Your task to perform on an android device: uninstall "Nova Launcher" Image 0: 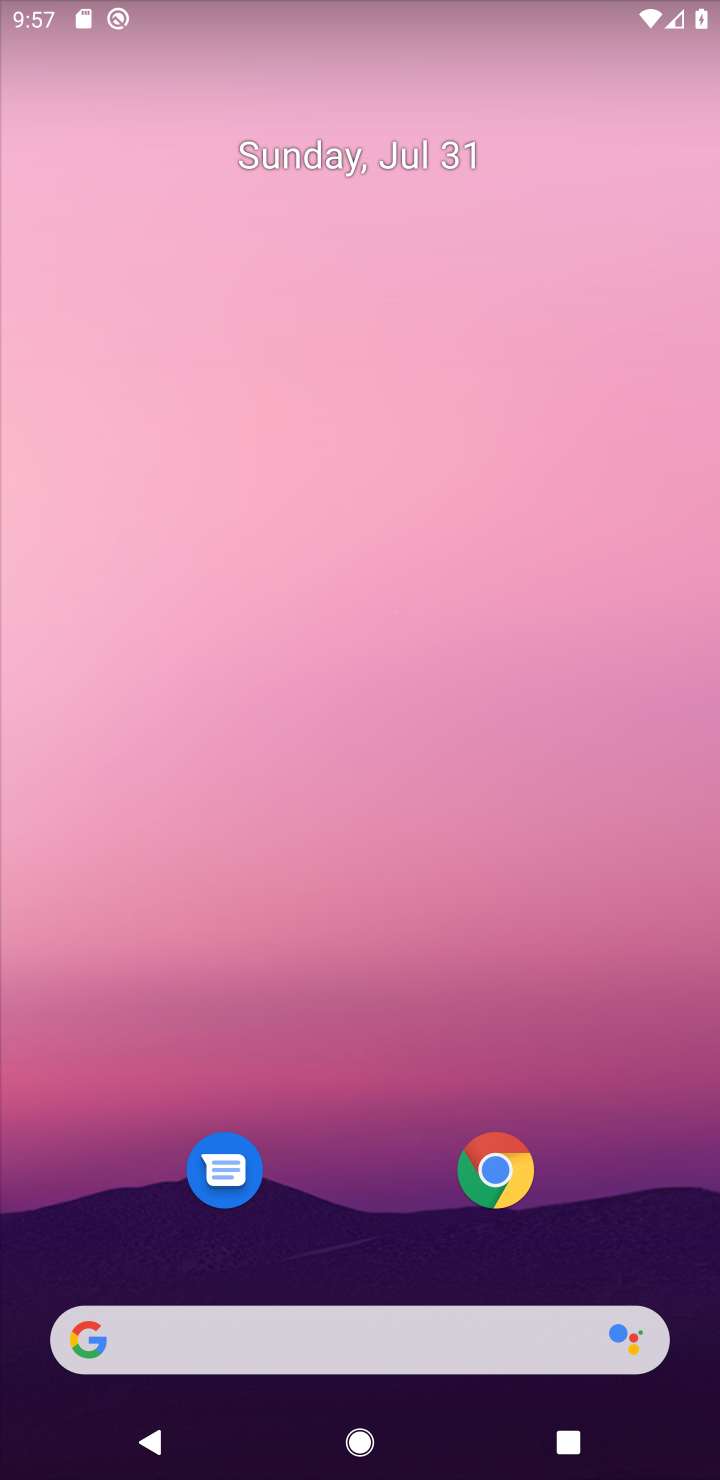
Step 0: drag from (658, 1170) to (380, 75)
Your task to perform on an android device: uninstall "Nova Launcher" Image 1: 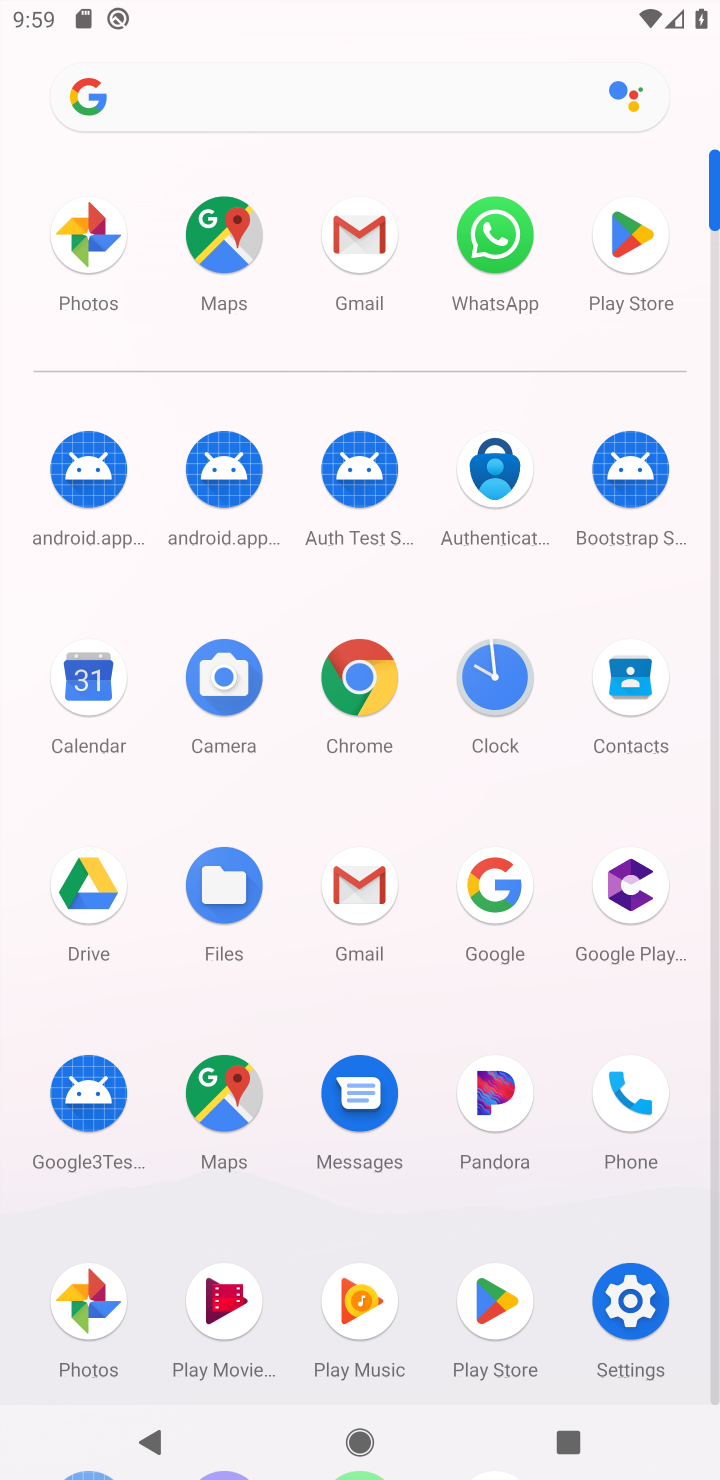
Step 1: click (644, 221)
Your task to perform on an android device: uninstall "Nova Launcher" Image 2: 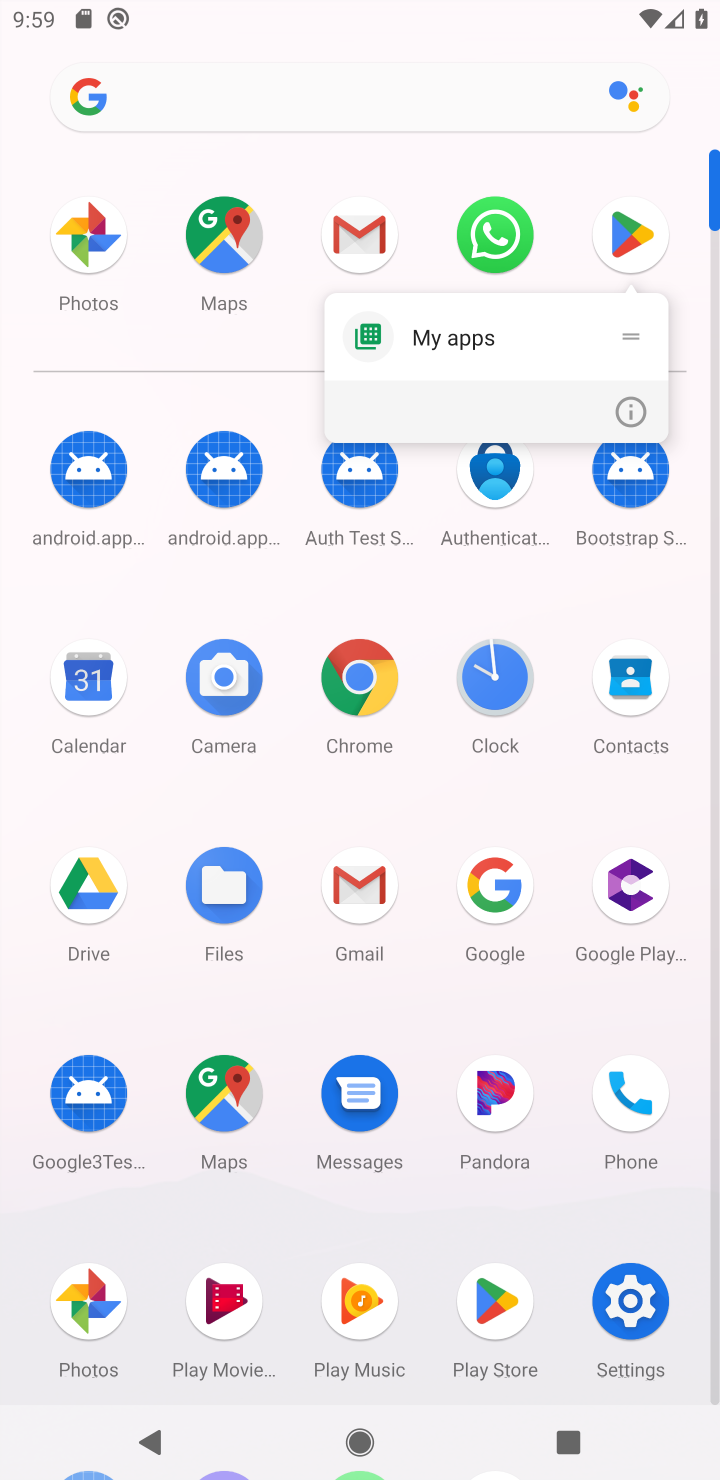
Step 2: click (639, 226)
Your task to perform on an android device: uninstall "Nova Launcher" Image 3: 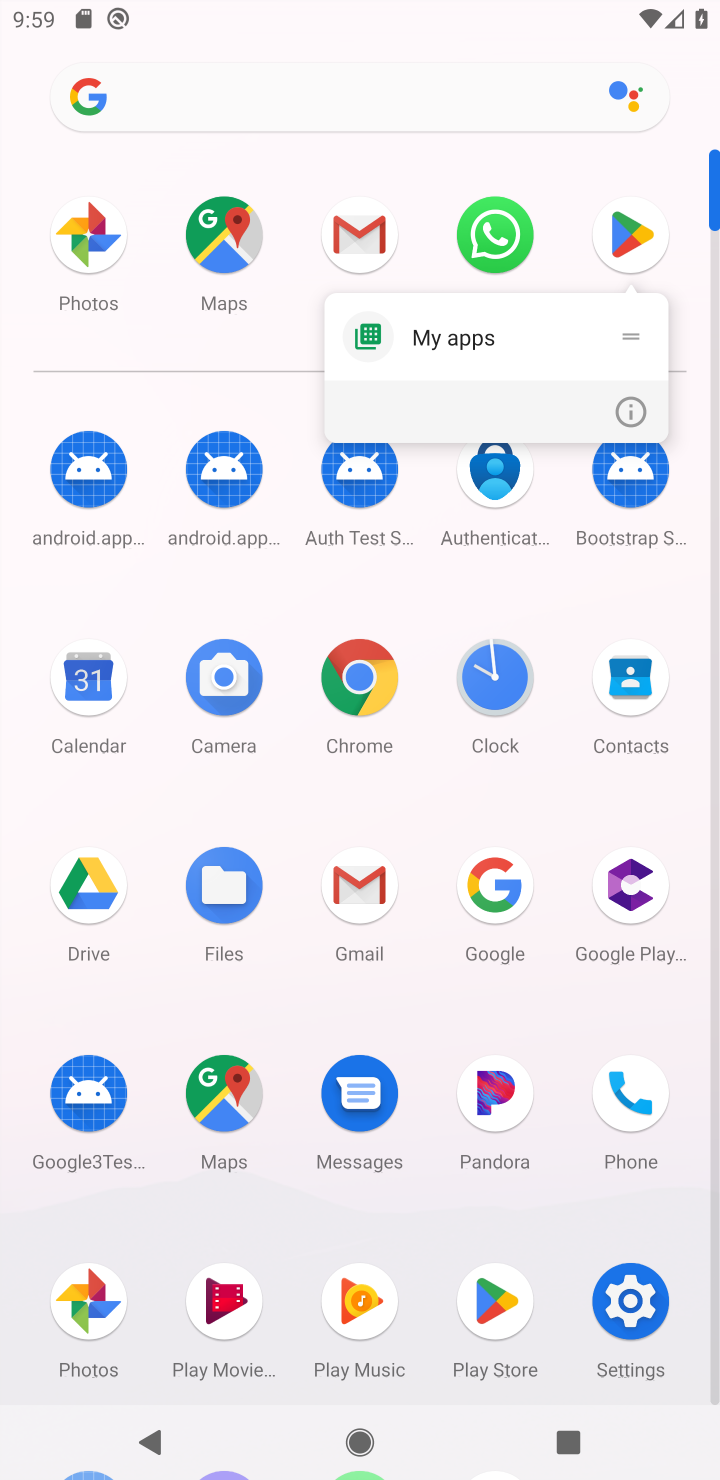
Step 3: click (619, 233)
Your task to perform on an android device: uninstall "Nova Launcher" Image 4: 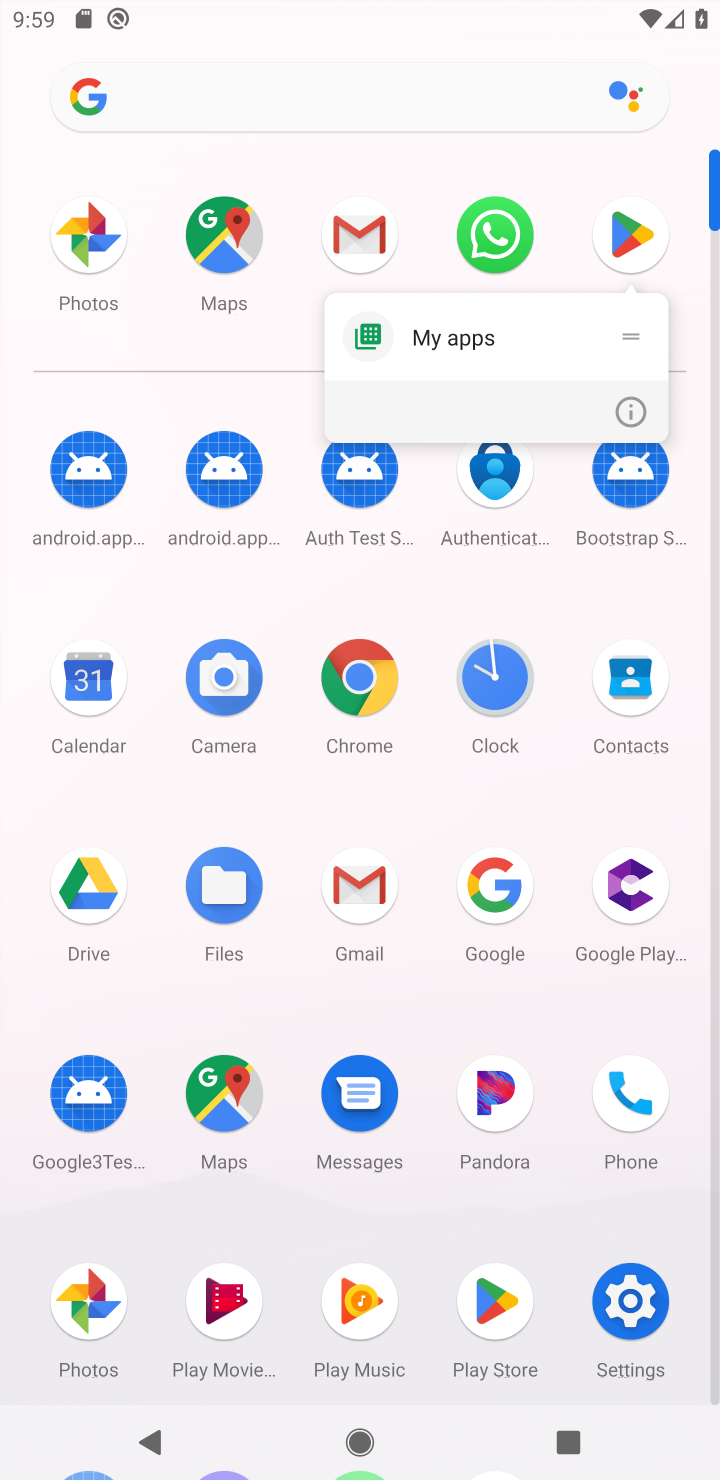
Step 4: click (621, 215)
Your task to perform on an android device: uninstall "Nova Launcher" Image 5: 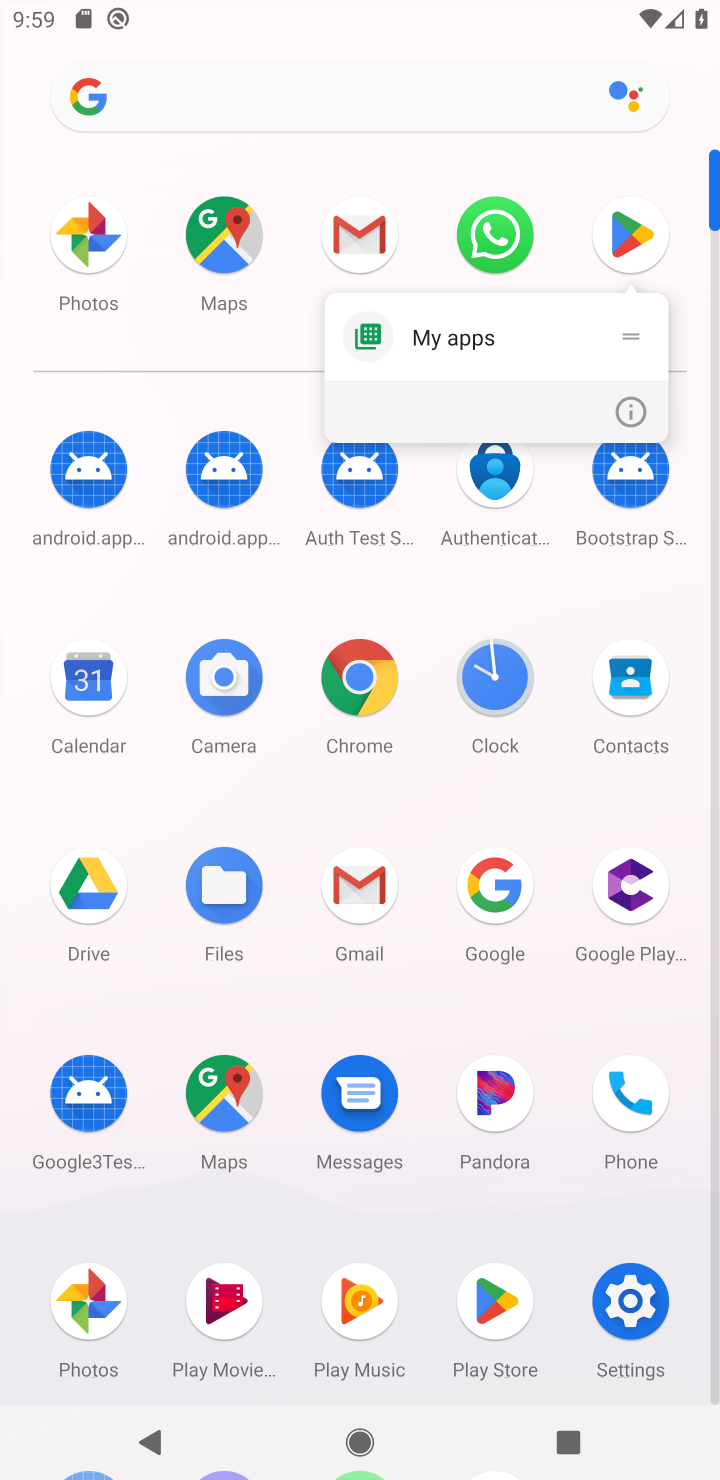
Step 5: click (612, 213)
Your task to perform on an android device: uninstall "Nova Launcher" Image 6: 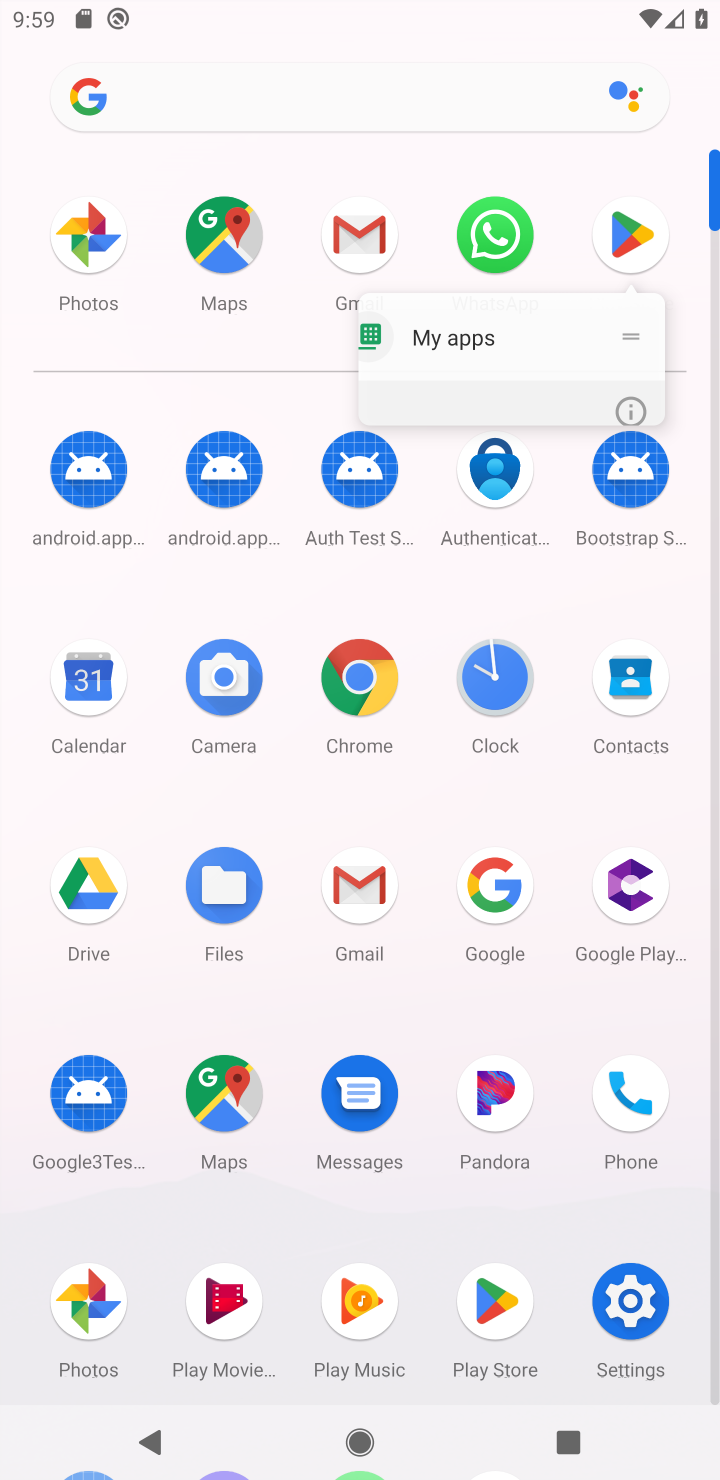
Step 6: click (634, 242)
Your task to perform on an android device: uninstall "Nova Launcher" Image 7: 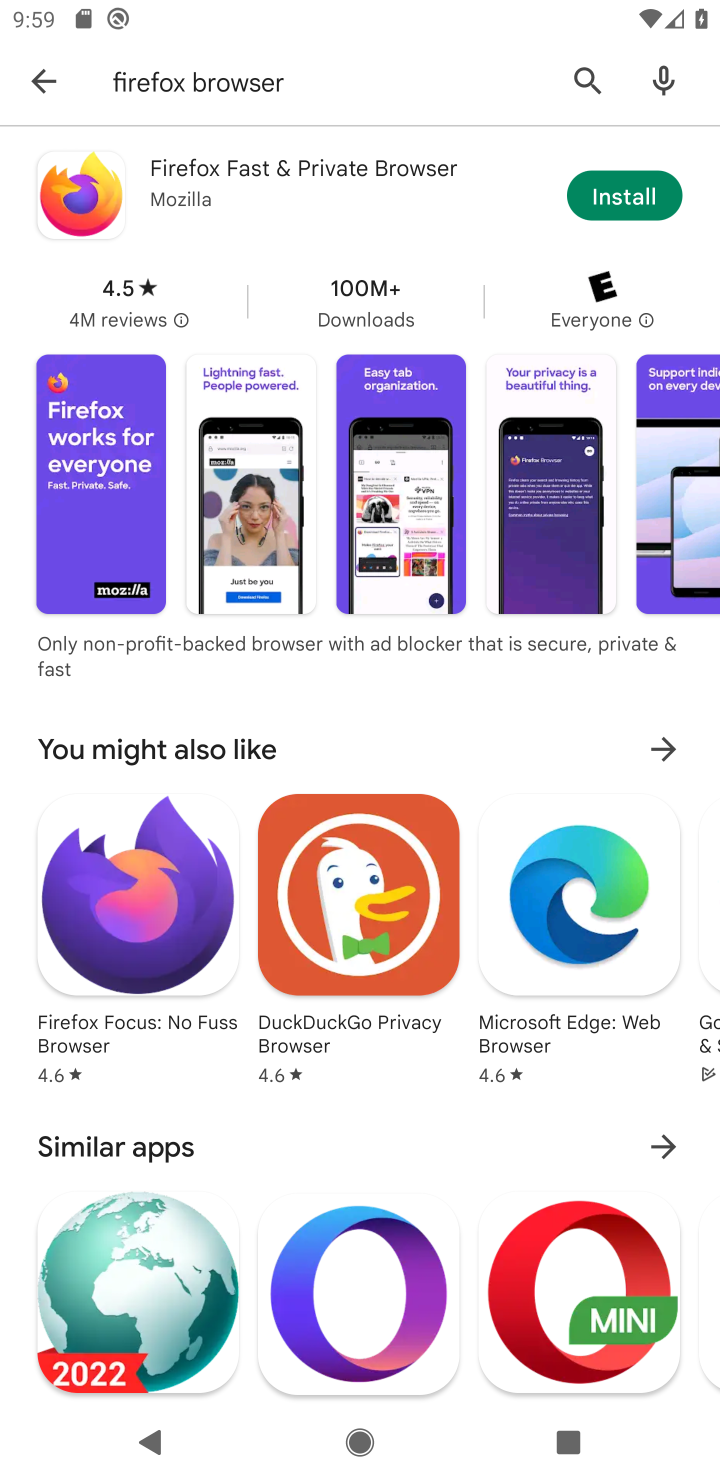
Step 7: press back button
Your task to perform on an android device: uninstall "Nova Launcher" Image 8: 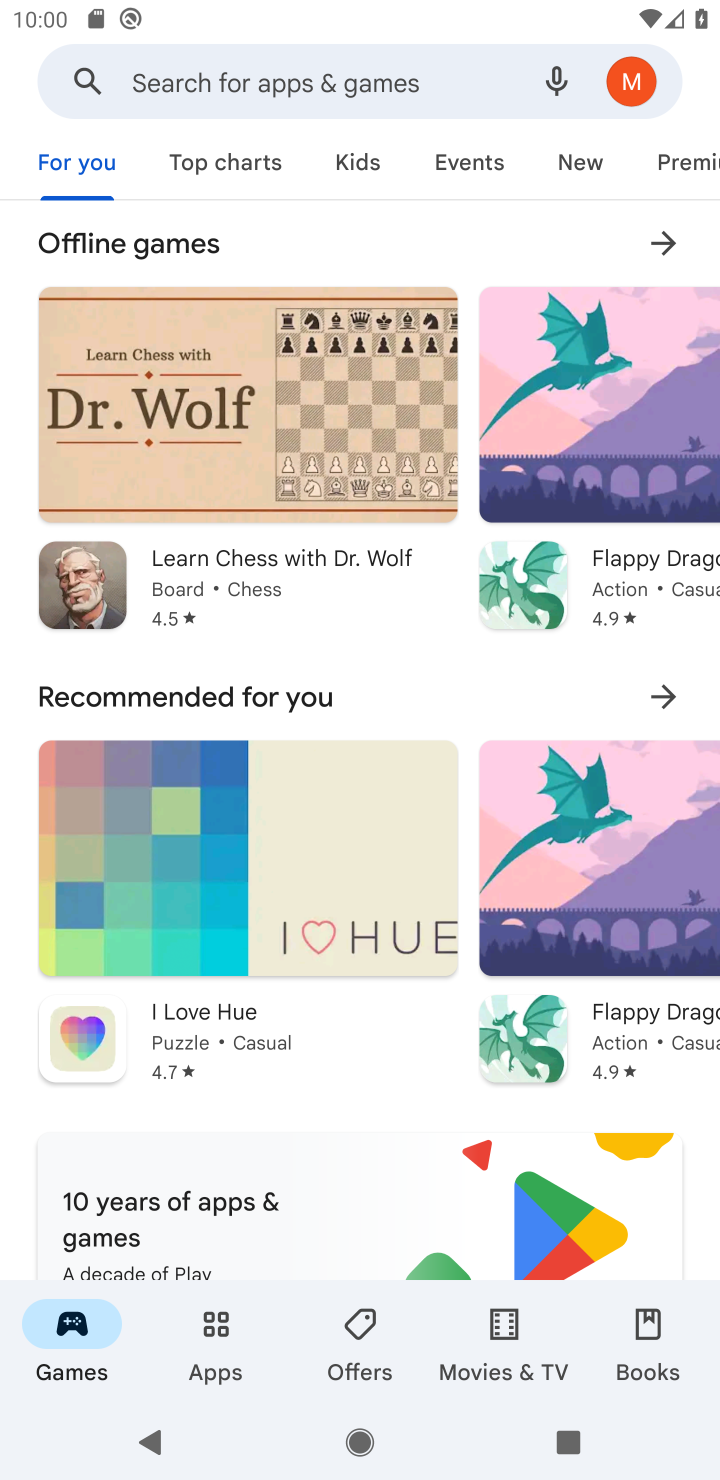
Step 8: click (262, 83)
Your task to perform on an android device: uninstall "Nova Launcher" Image 9: 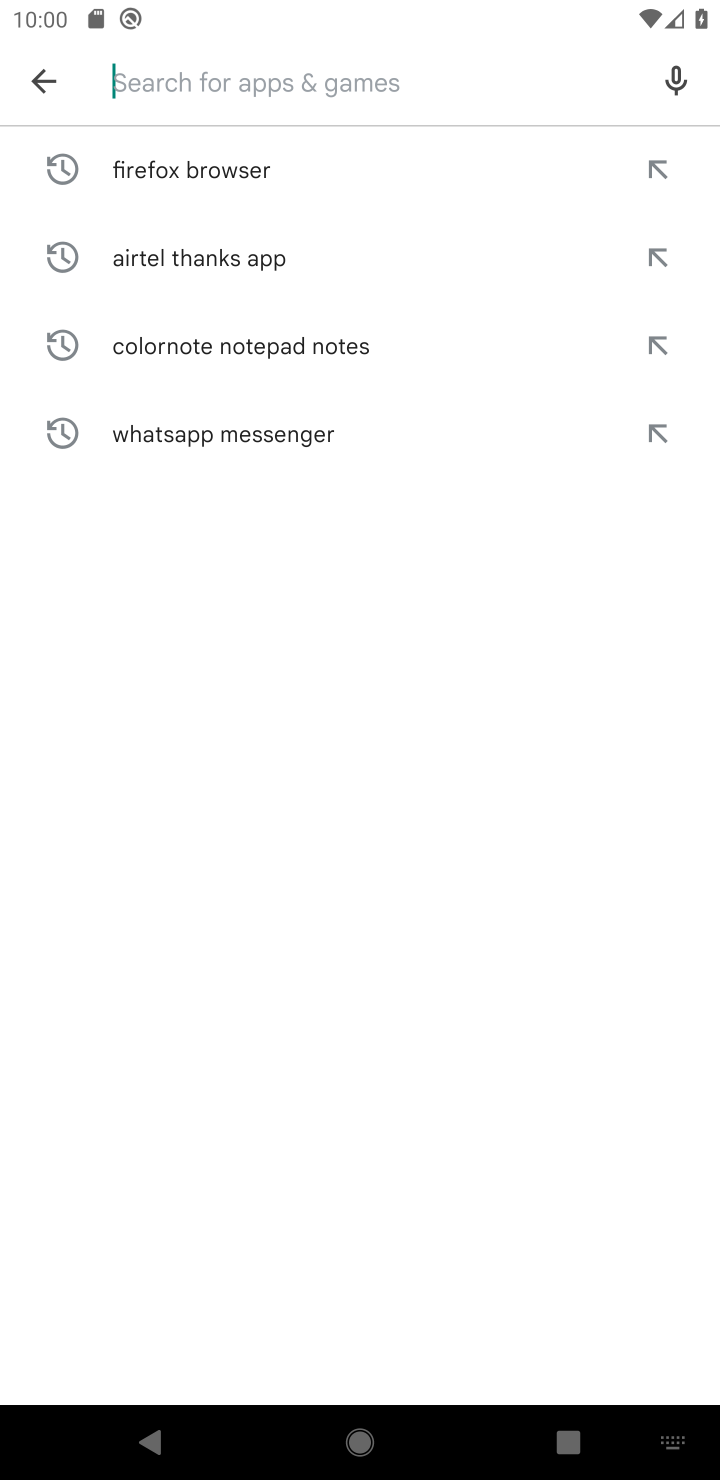
Step 9: type "Nova Launcher"
Your task to perform on an android device: uninstall "Nova Launcher" Image 10: 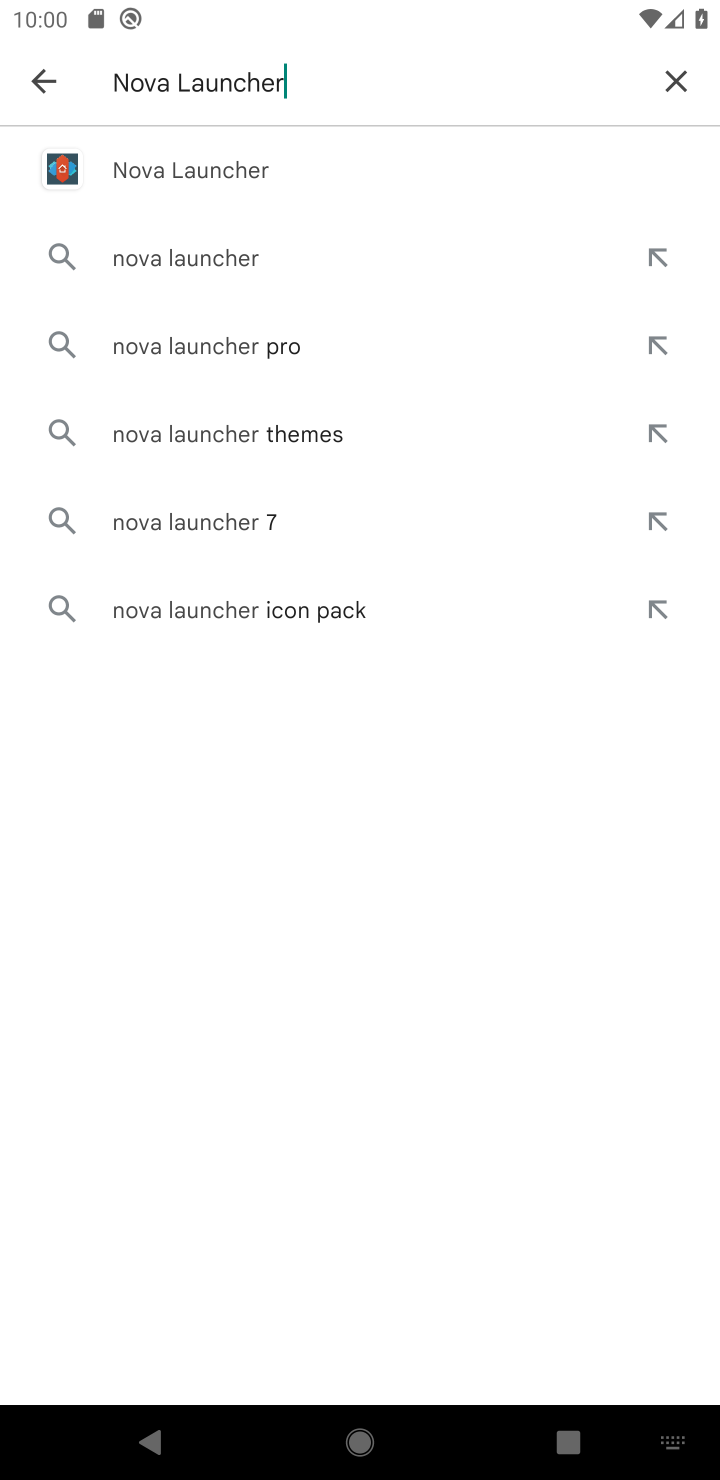
Step 10: click (157, 171)
Your task to perform on an android device: uninstall "Nova Launcher" Image 11: 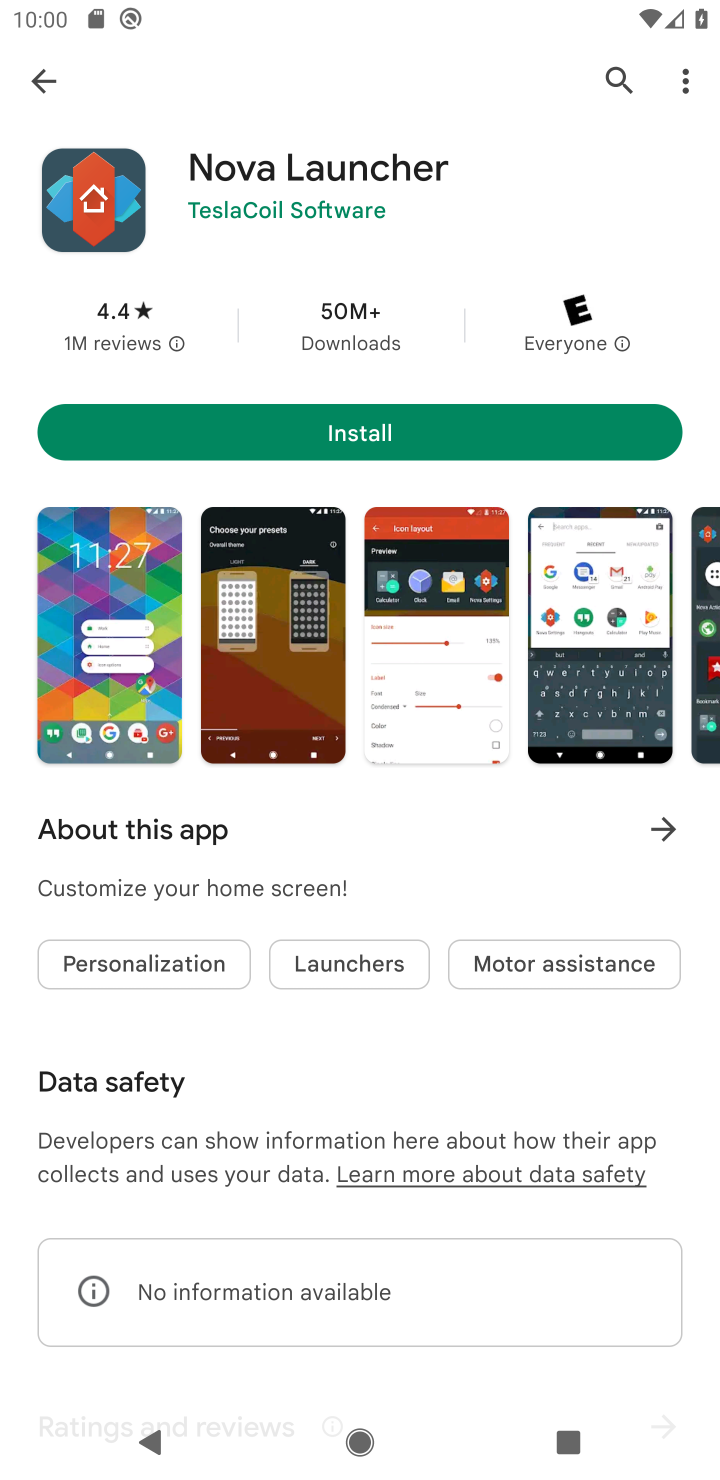
Step 11: task complete